Your task to perform on an android device: change notification settings in the gmail app Image 0: 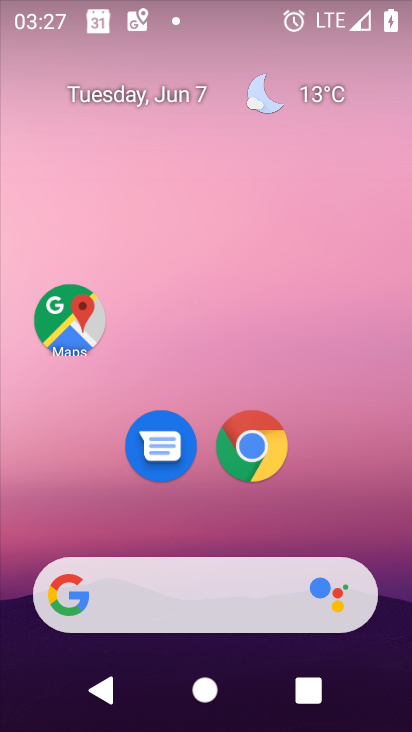
Step 0: click (283, 435)
Your task to perform on an android device: change notification settings in the gmail app Image 1: 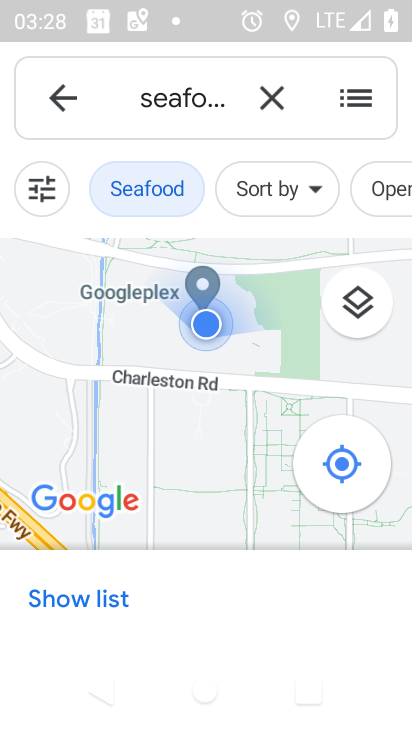
Step 1: press home button
Your task to perform on an android device: change notification settings in the gmail app Image 2: 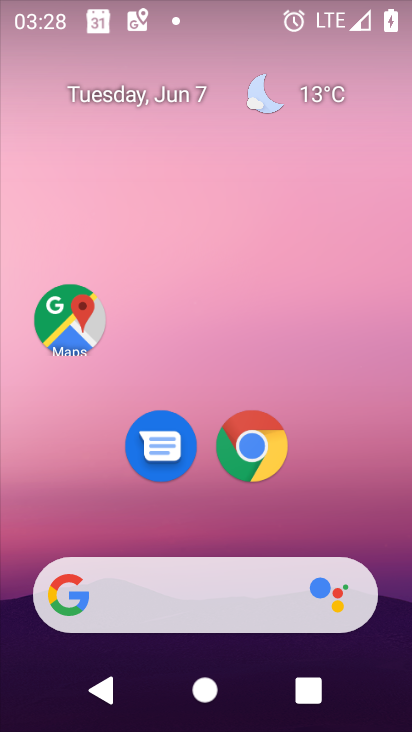
Step 2: drag from (265, 521) to (395, 6)
Your task to perform on an android device: change notification settings in the gmail app Image 3: 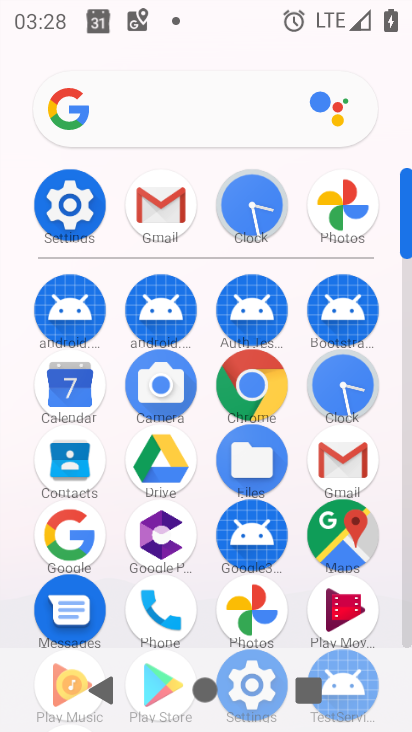
Step 3: click (341, 466)
Your task to perform on an android device: change notification settings in the gmail app Image 4: 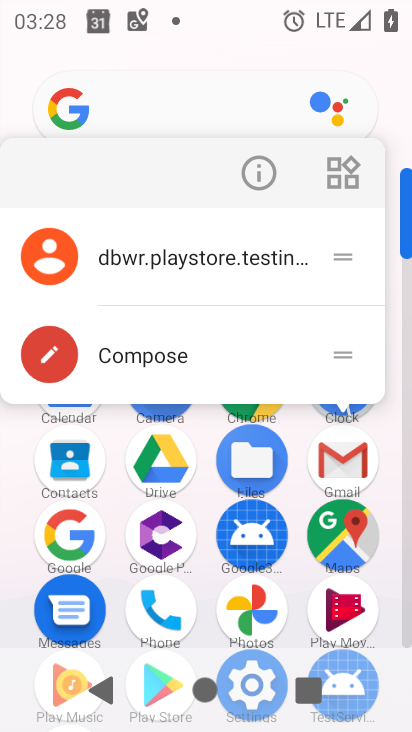
Step 4: click (269, 175)
Your task to perform on an android device: change notification settings in the gmail app Image 5: 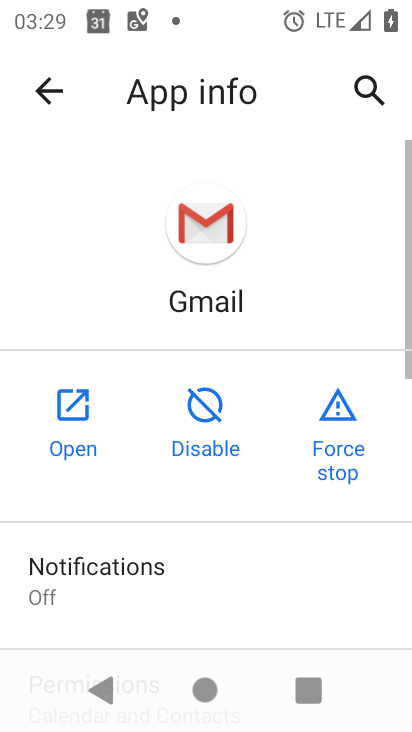
Step 5: click (210, 558)
Your task to perform on an android device: change notification settings in the gmail app Image 6: 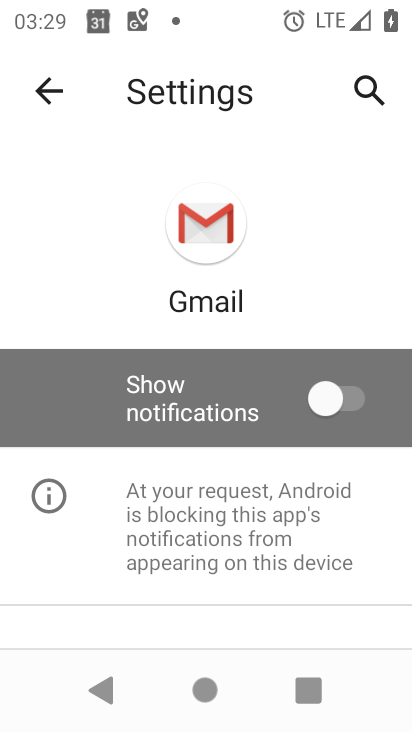
Step 6: click (351, 406)
Your task to perform on an android device: change notification settings in the gmail app Image 7: 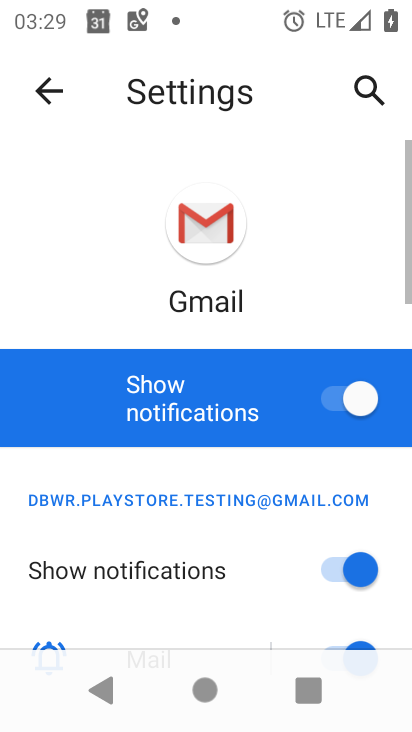
Step 7: task complete